Your task to perform on an android device: toggle notifications settings in the gmail app Image 0: 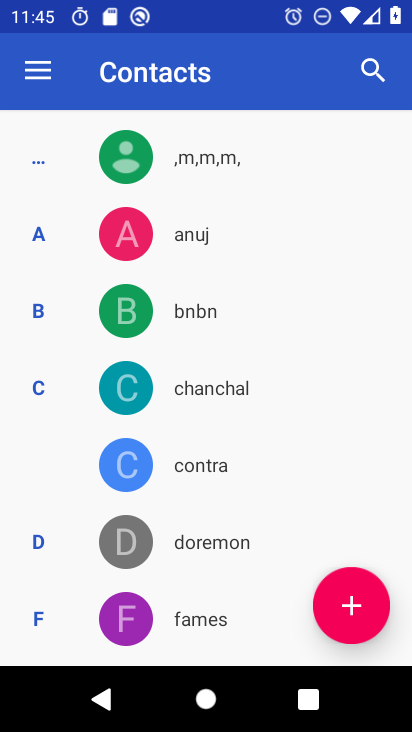
Step 0: press home button
Your task to perform on an android device: toggle notifications settings in the gmail app Image 1: 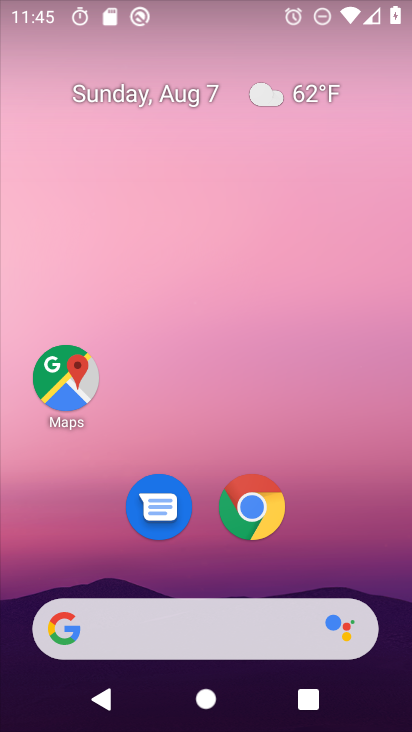
Step 1: drag from (345, 509) to (328, 11)
Your task to perform on an android device: toggle notifications settings in the gmail app Image 2: 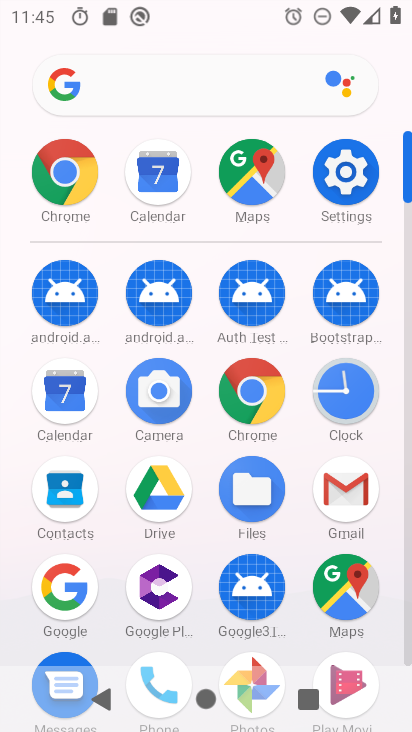
Step 2: click (338, 503)
Your task to perform on an android device: toggle notifications settings in the gmail app Image 3: 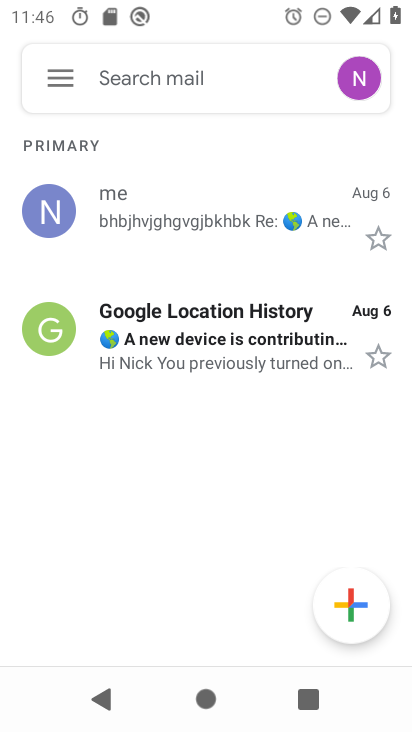
Step 3: click (67, 66)
Your task to perform on an android device: toggle notifications settings in the gmail app Image 4: 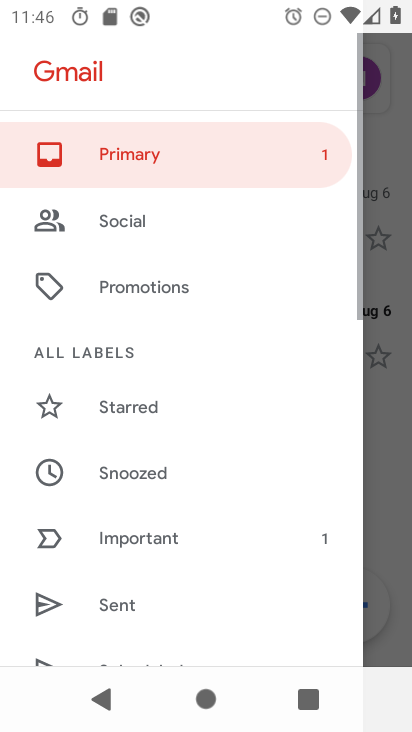
Step 4: drag from (179, 458) to (313, 75)
Your task to perform on an android device: toggle notifications settings in the gmail app Image 5: 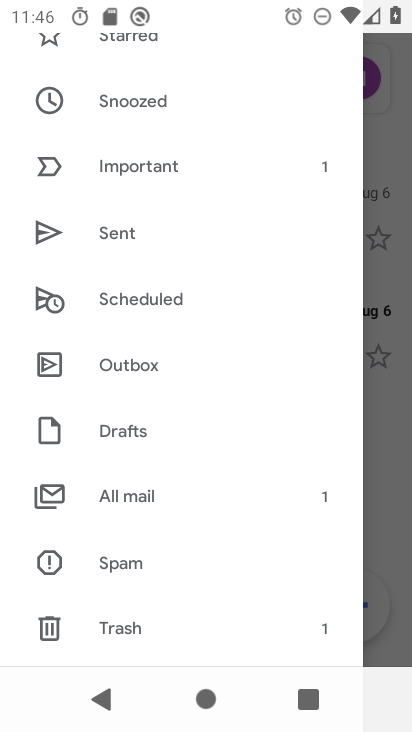
Step 5: drag from (147, 556) to (285, 213)
Your task to perform on an android device: toggle notifications settings in the gmail app Image 6: 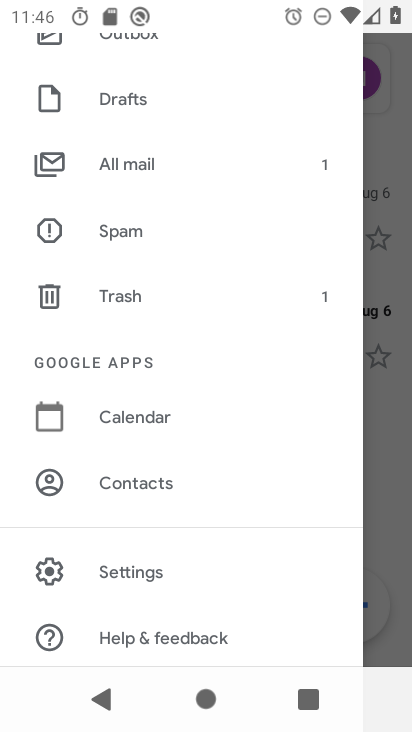
Step 6: click (121, 579)
Your task to perform on an android device: toggle notifications settings in the gmail app Image 7: 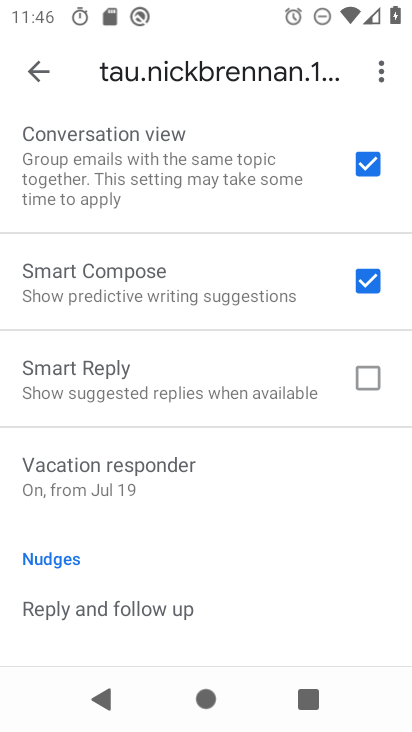
Step 7: drag from (205, 170) to (203, 647)
Your task to perform on an android device: toggle notifications settings in the gmail app Image 8: 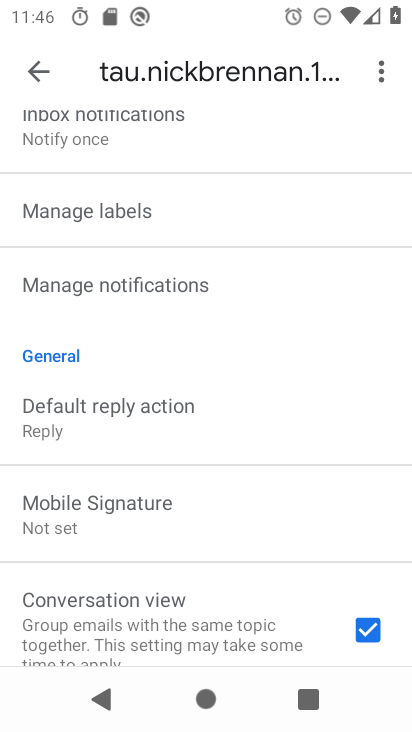
Step 8: drag from (182, 165) to (175, 570)
Your task to perform on an android device: toggle notifications settings in the gmail app Image 9: 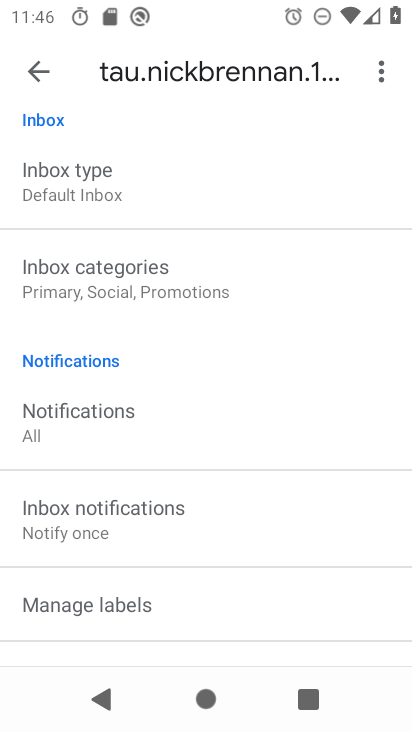
Step 9: drag from (230, 532) to (258, 300)
Your task to perform on an android device: toggle notifications settings in the gmail app Image 10: 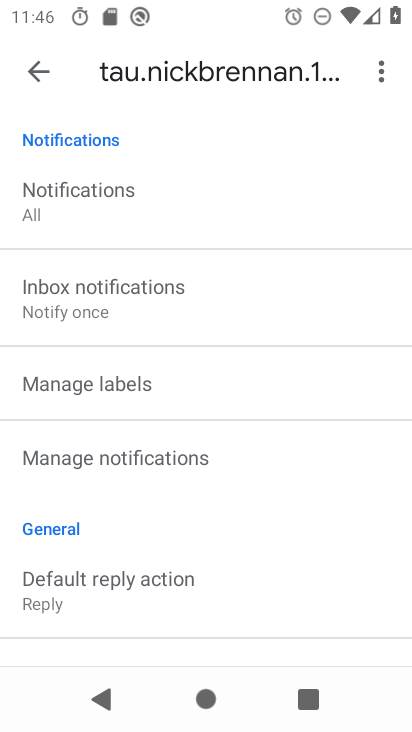
Step 10: click (123, 473)
Your task to perform on an android device: toggle notifications settings in the gmail app Image 11: 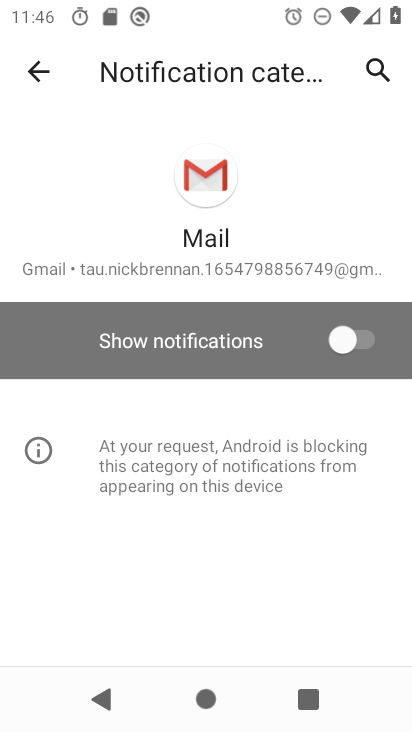
Step 11: click (329, 339)
Your task to perform on an android device: toggle notifications settings in the gmail app Image 12: 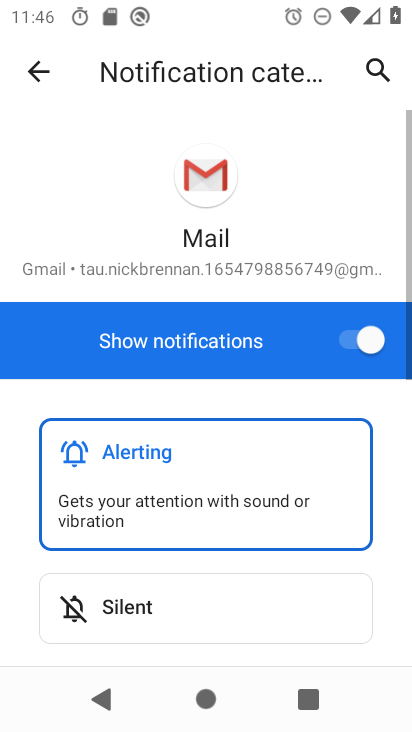
Step 12: task complete